Your task to perform on an android device: add a contact Image 0: 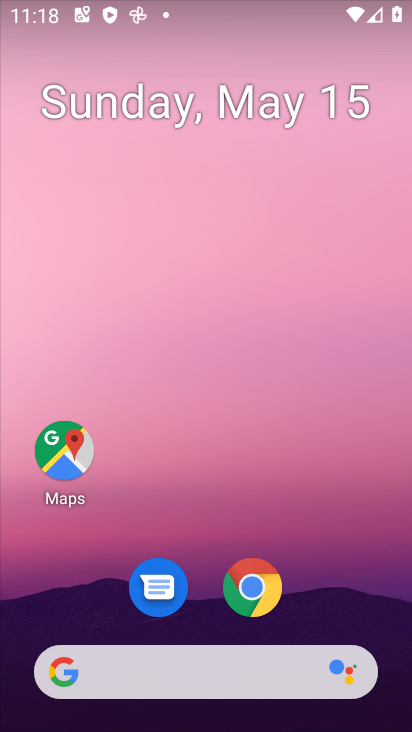
Step 0: drag from (389, 606) to (318, 45)
Your task to perform on an android device: add a contact Image 1: 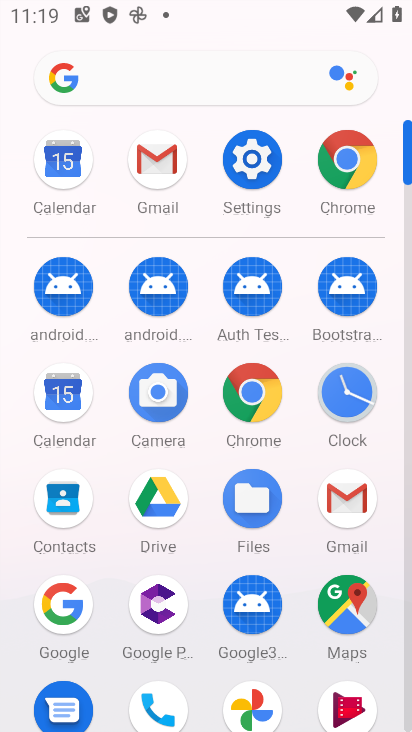
Step 1: click (58, 512)
Your task to perform on an android device: add a contact Image 2: 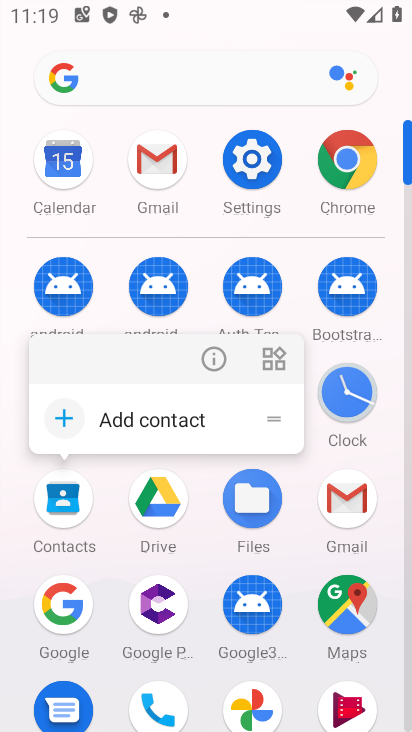
Step 2: click (58, 512)
Your task to perform on an android device: add a contact Image 3: 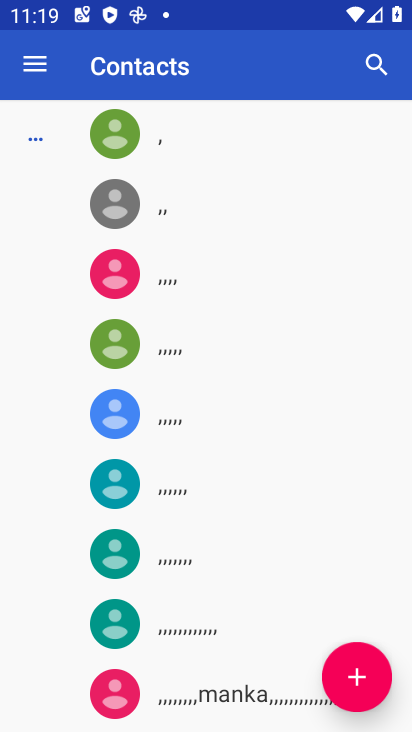
Step 3: click (385, 673)
Your task to perform on an android device: add a contact Image 4: 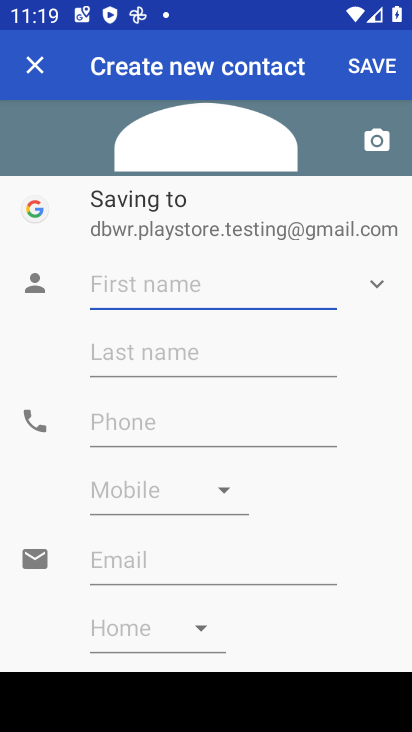
Step 4: type "raju"
Your task to perform on an android device: add a contact Image 5: 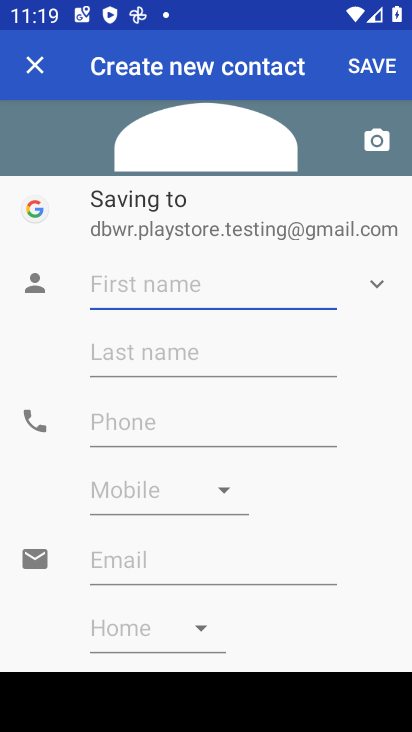
Step 5: click (368, 58)
Your task to perform on an android device: add a contact Image 6: 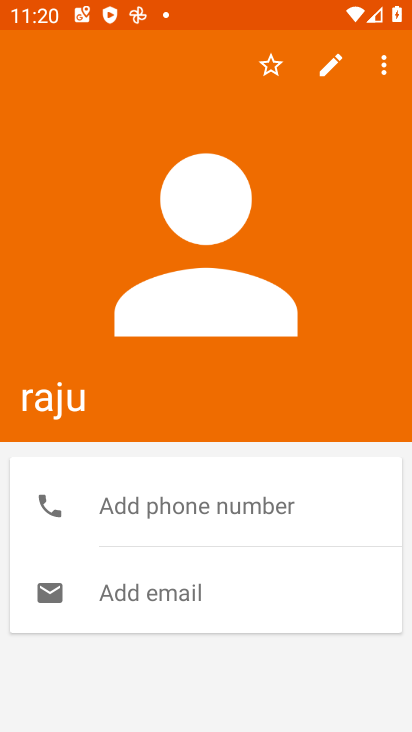
Step 6: task complete